Your task to perform on an android device: turn off location Image 0: 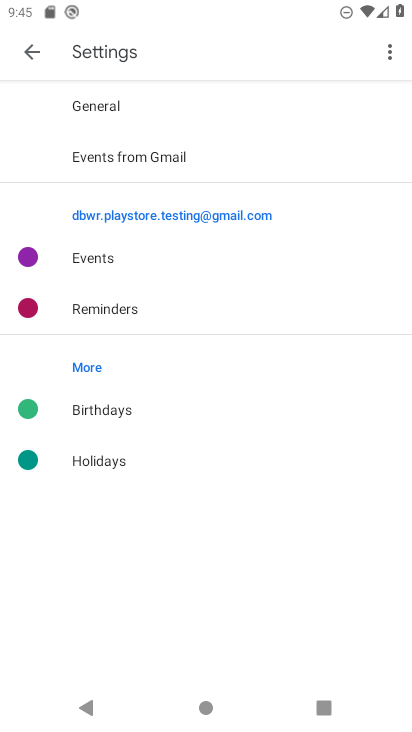
Step 0: press home button
Your task to perform on an android device: turn off location Image 1: 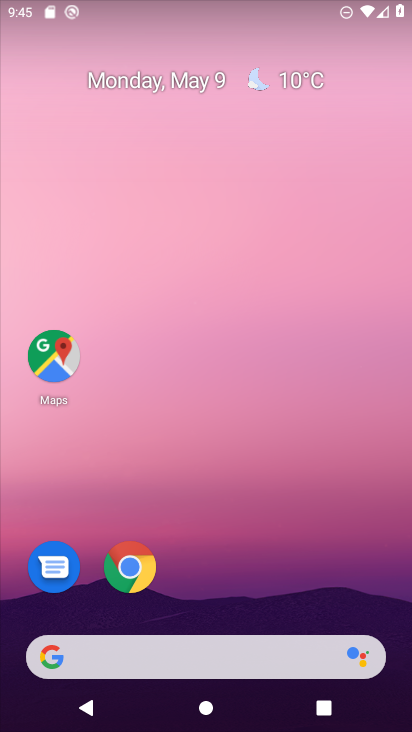
Step 1: drag from (305, 465) to (263, 1)
Your task to perform on an android device: turn off location Image 2: 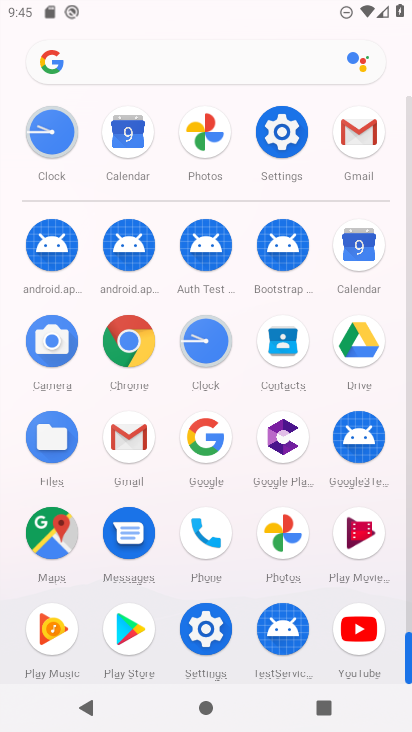
Step 2: click (280, 134)
Your task to perform on an android device: turn off location Image 3: 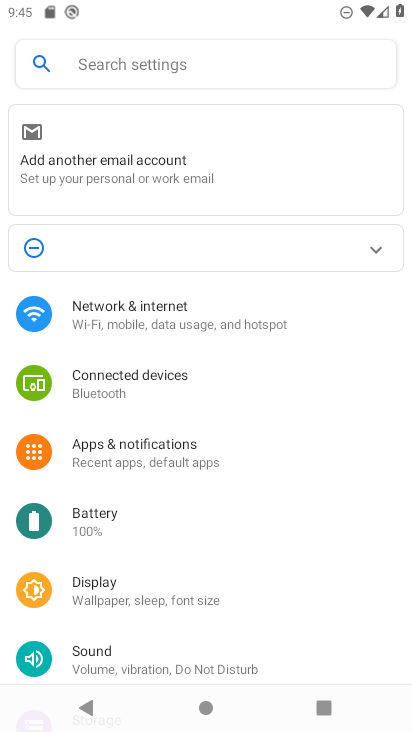
Step 3: drag from (201, 551) to (174, 37)
Your task to perform on an android device: turn off location Image 4: 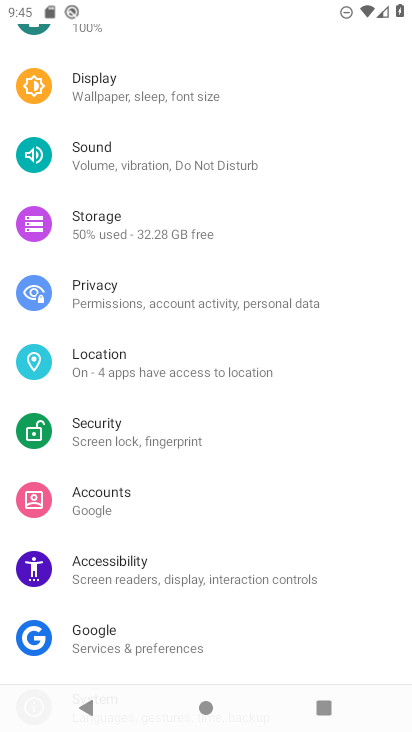
Step 4: click (218, 371)
Your task to perform on an android device: turn off location Image 5: 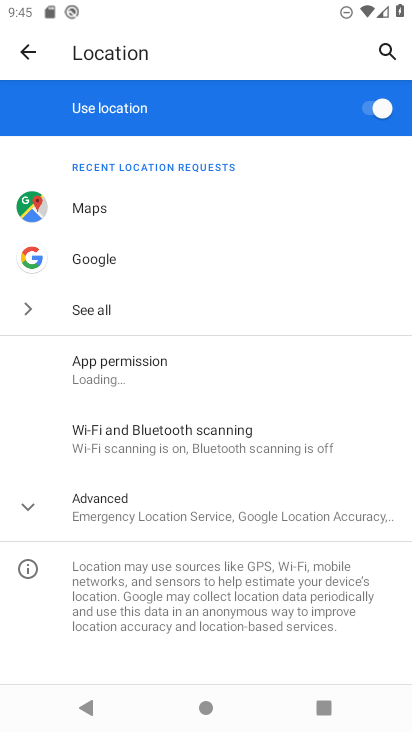
Step 5: click (372, 110)
Your task to perform on an android device: turn off location Image 6: 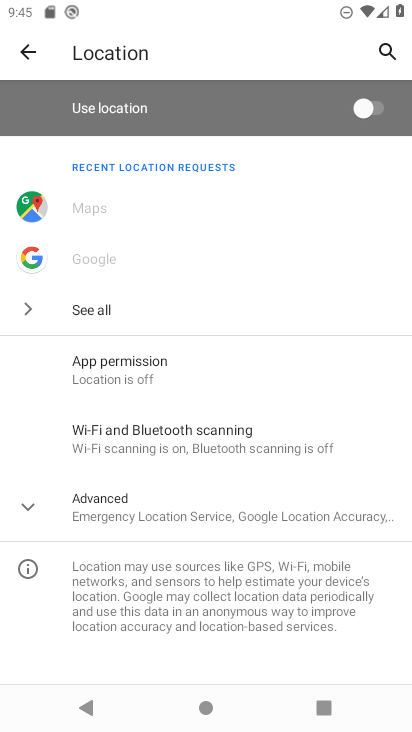
Step 6: task complete